Your task to perform on an android device: turn off notifications in google photos Image 0: 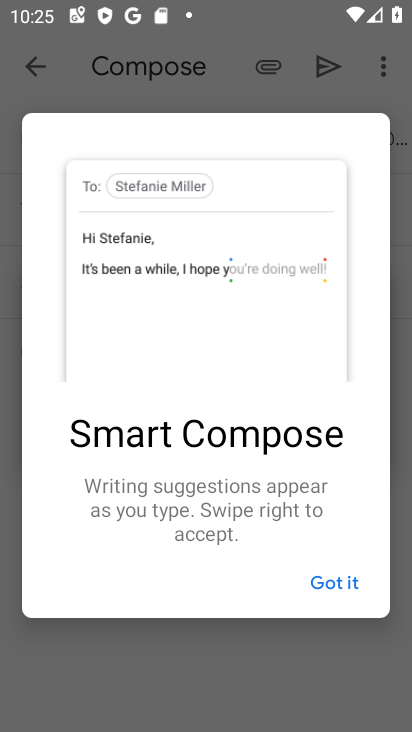
Step 0: press home button
Your task to perform on an android device: turn off notifications in google photos Image 1: 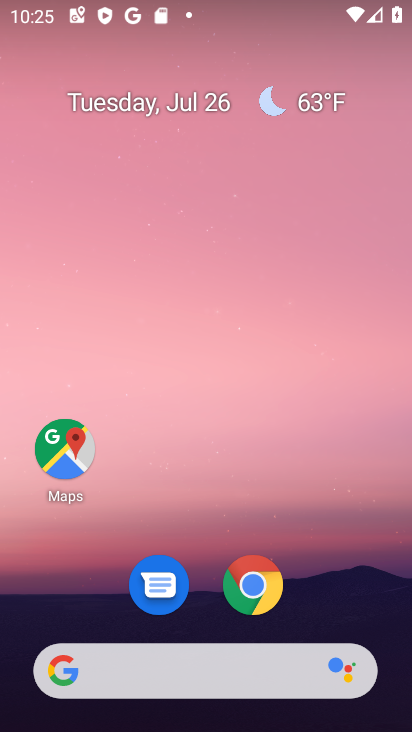
Step 1: drag from (315, 561) to (341, 64)
Your task to perform on an android device: turn off notifications in google photos Image 2: 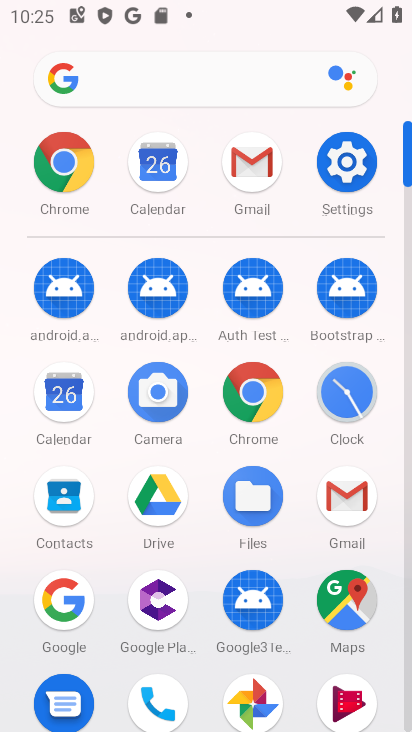
Step 2: drag from (204, 542) to (247, 196)
Your task to perform on an android device: turn off notifications in google photos Image 3: 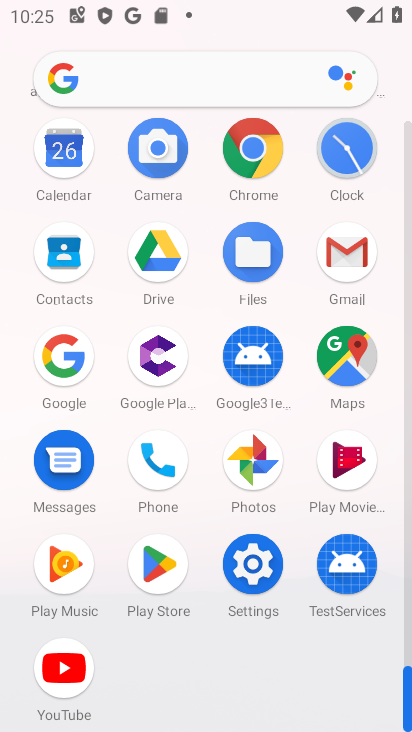
Step 3: click (257, 462)
Your task to perform on an android device: turn off notifications in google photos Image 4: 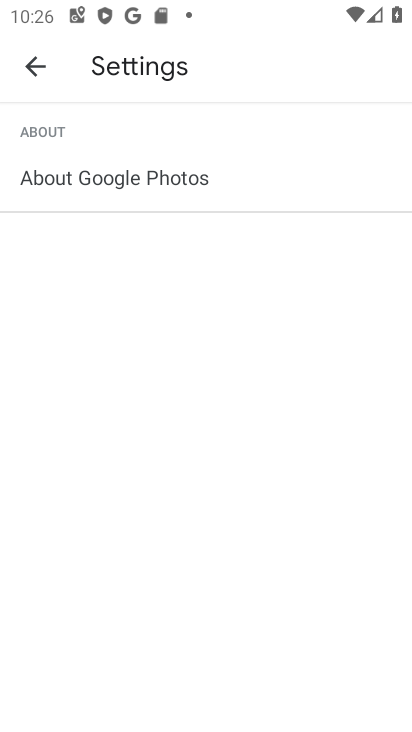
Step 4: click (31, 62)
Your task to perform on an android device: turn off notifications in google photos Image 5: 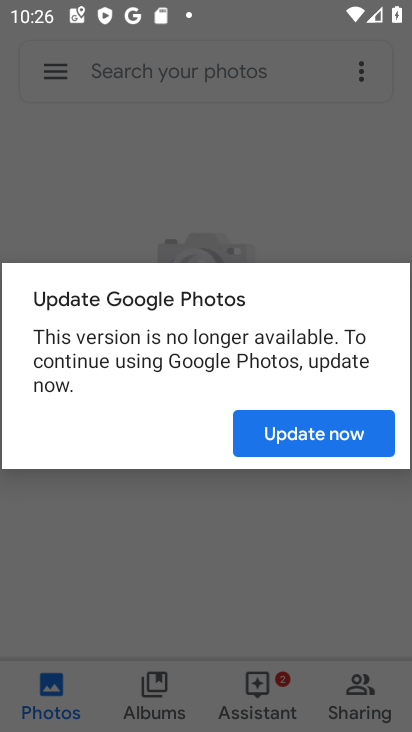
Step 5: click (280, 424)
Your task to perform on an android device: turn off notifications in google photos Image 6: 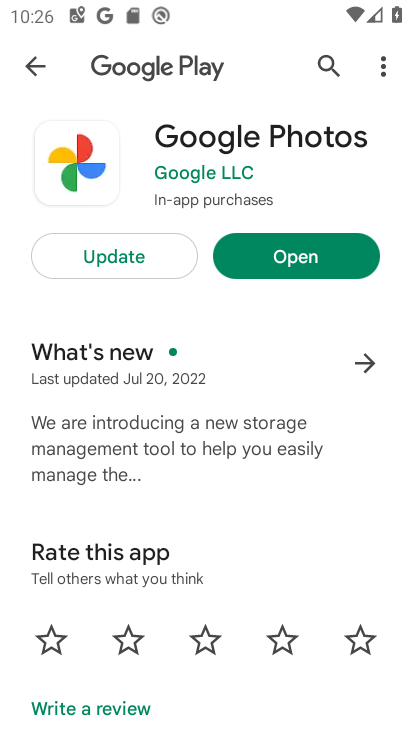
Step 6: click (314, 261)
Your task to perform on an android device: turn off notifications in google photos Image 7: 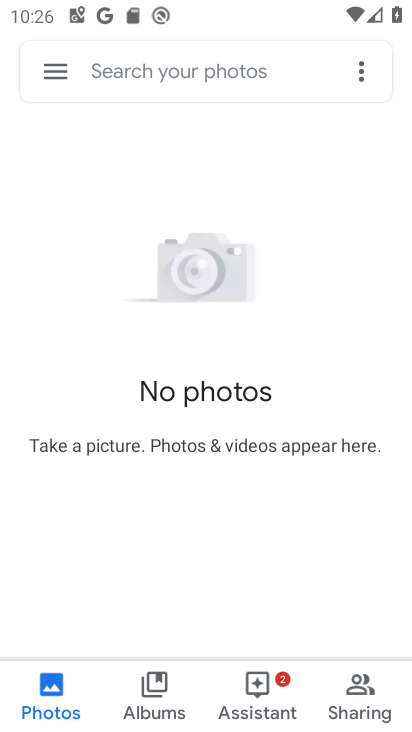
Step 7: click (63, 71)
Your task to perform on an android device: turn off notifications in google photos Image 8: 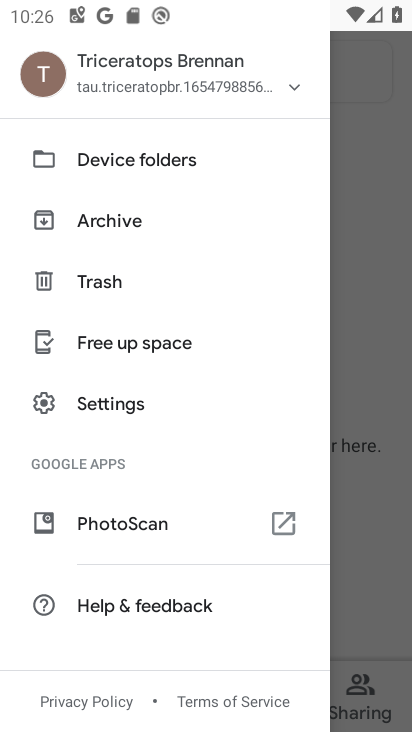
Step 8: click (116, 389)
Your task to perform on an android device: turn off notifications in google photos Image 9: 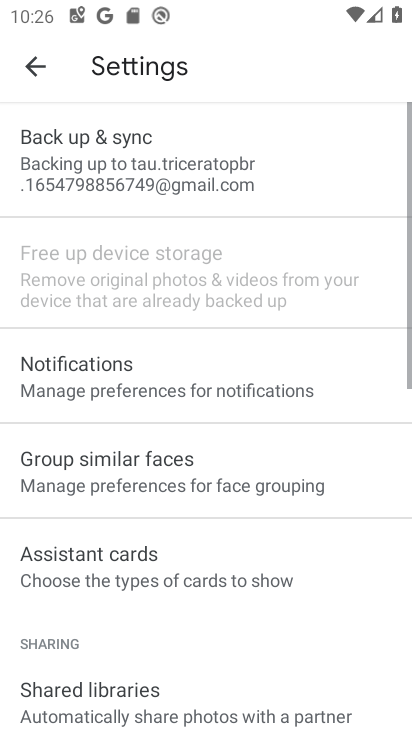
Step 9: click (116, 384)
Your task to perform on an android device: turn off notifications in google photos Image 10: 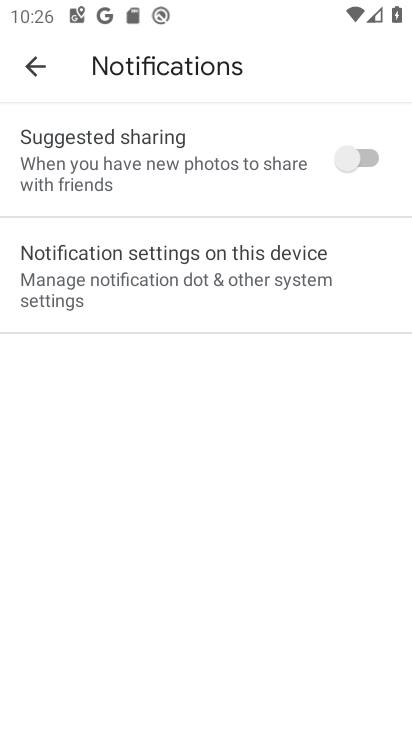
Step 10: click (210, 268)
Your task to perform on an android device: turn off notifications in google photos Image 11: 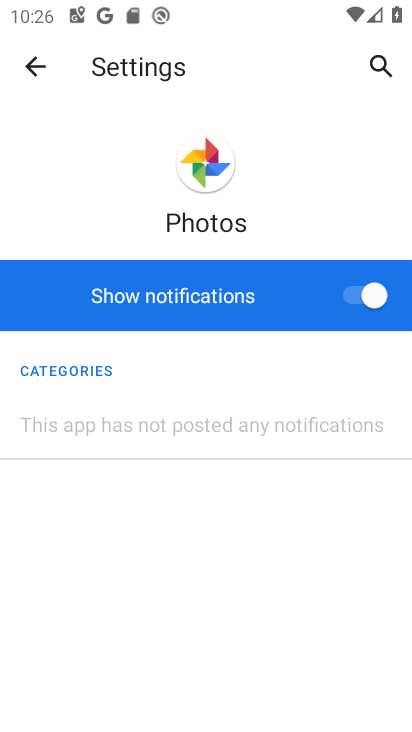
Step 11: click (354, 296)
Your task to perform on an android device: turn off notifications in google photos Image 12: 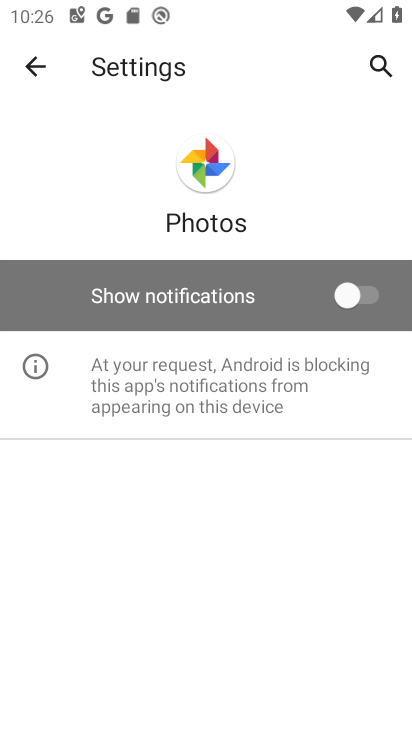
Step 12: task complete